Your task to perform on an android device: Open internet settings Image 0: 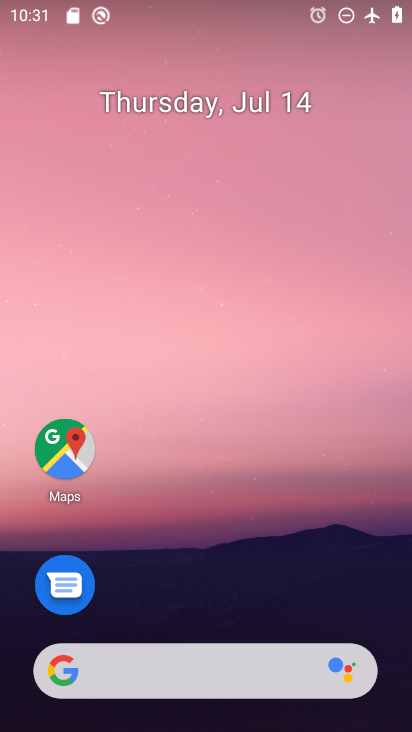
Step 0: drag from (202, 616) to (100, 112)
Your task to perform on an android device: Open internet settings Image 1: 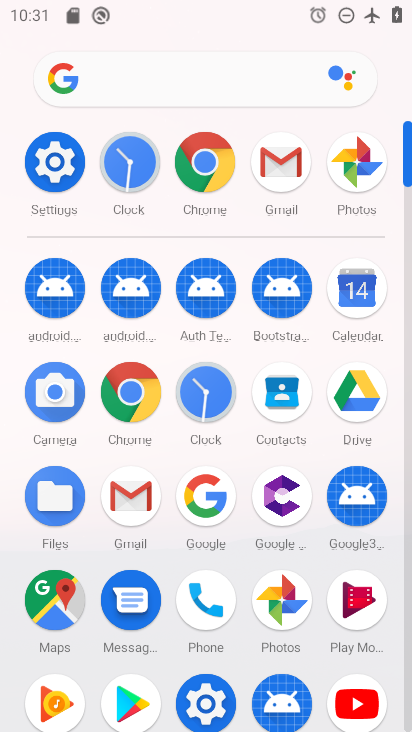
Step 1: click (54, 171)
Your task to perform on an android device: Open internet settings Image 2: 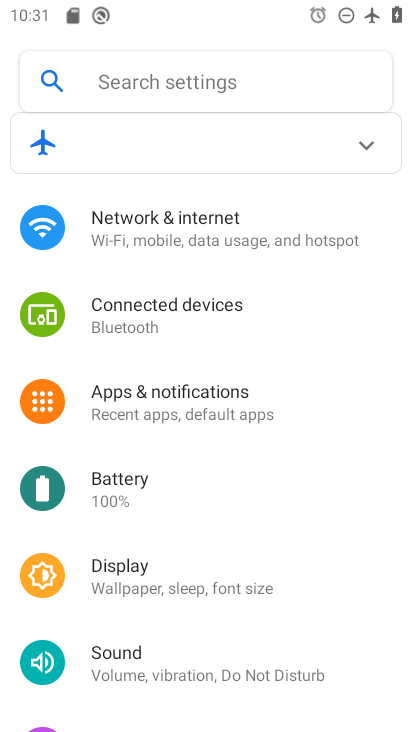
Step 2: click (108, 219)
Your task to perform on an android device: Open internet settings Image 3: 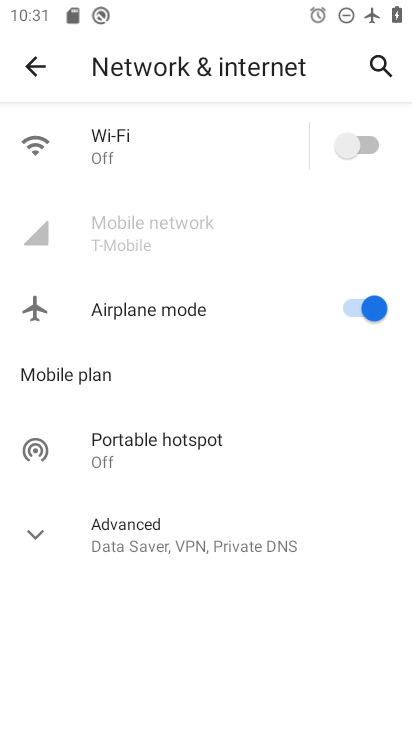
Step 3: task complete